Your task to perform on an android device: turn on location history Image 0: 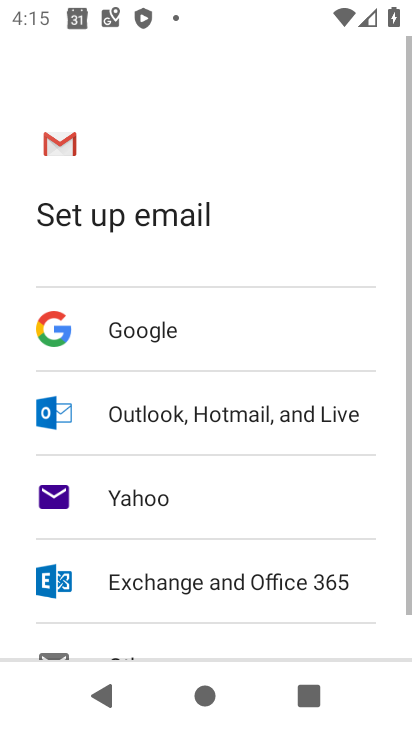
Step 0: press back button
Your task to perform on an android device: turn on location history Image 1: 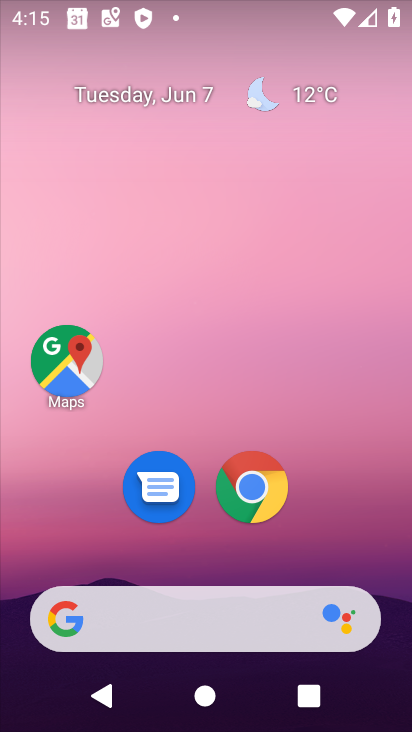
Step 1: drag from (180, 588) to (242, 102)
Your task to perform on an android device: turn on location history Image 2: 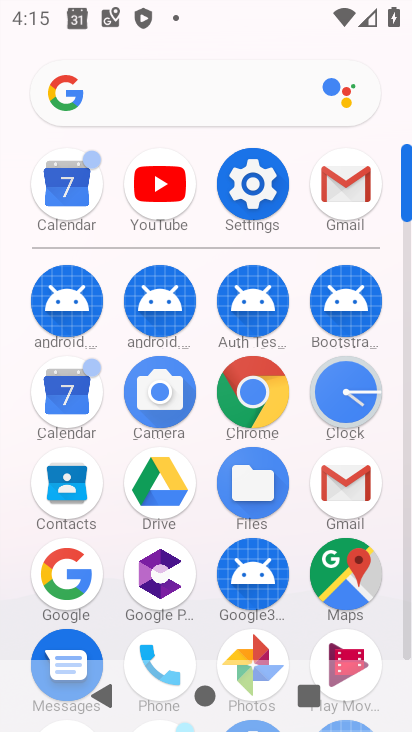
Step 2: click (262, 193)
Your task to perform on an android device: turn on location history Image 3: 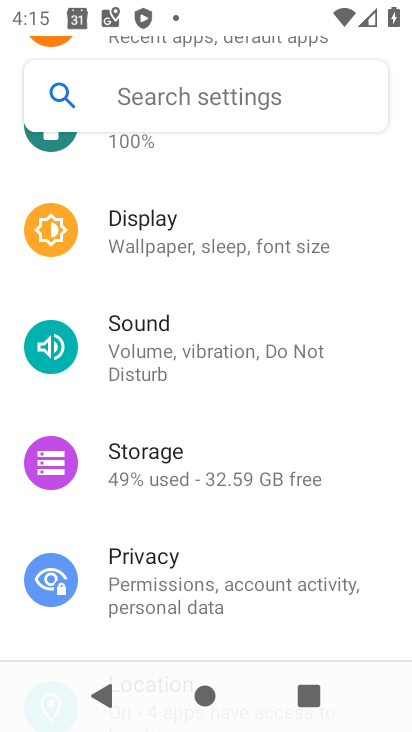
Step 3: drag from (160, 571) to (206, 251)
Your task to perform on an android device: turn on location history Image 4: 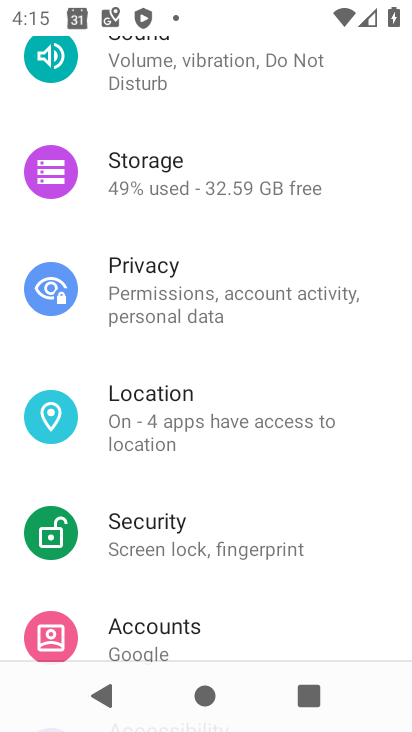
Step 4: click (165, 406)
Your task to perform on an android device: turn on location history Image 5: 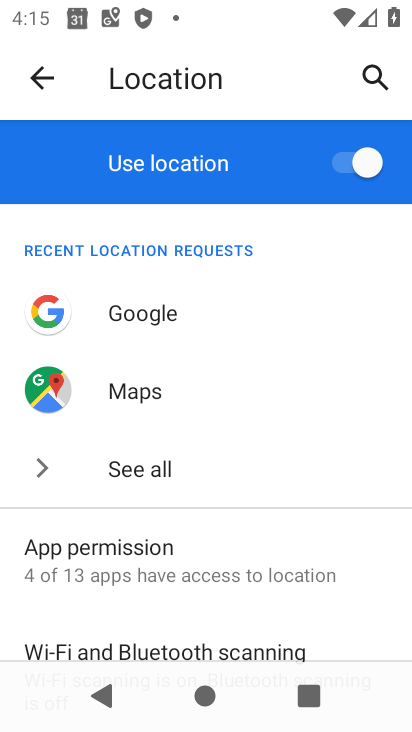
Step 5: drag from (153, 598) to (264, 212)
Your task to perform on an android device: turn on location history Image 6: 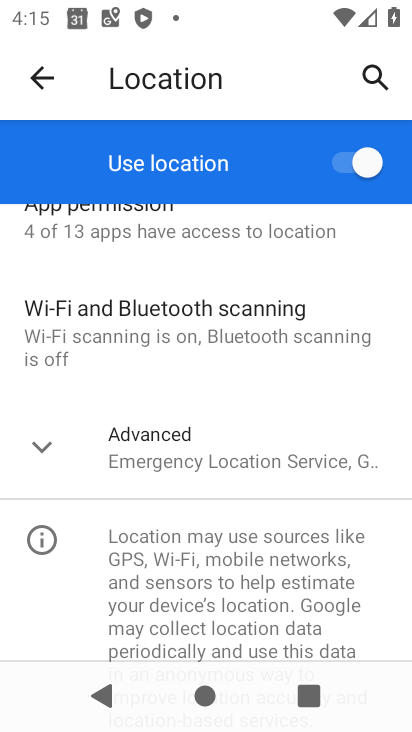
Step 6: click (210, 465)
Your task to perform on an android device: turn on location history Image 7: 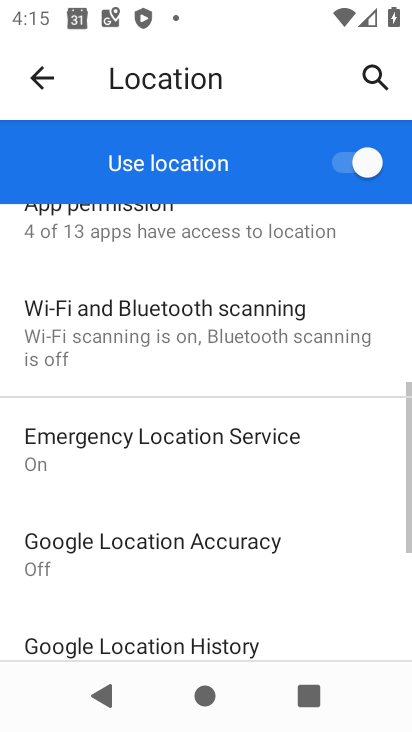
Step 7: click (185, 608)
Your task to perform on an android device: turn on location history Image 8: 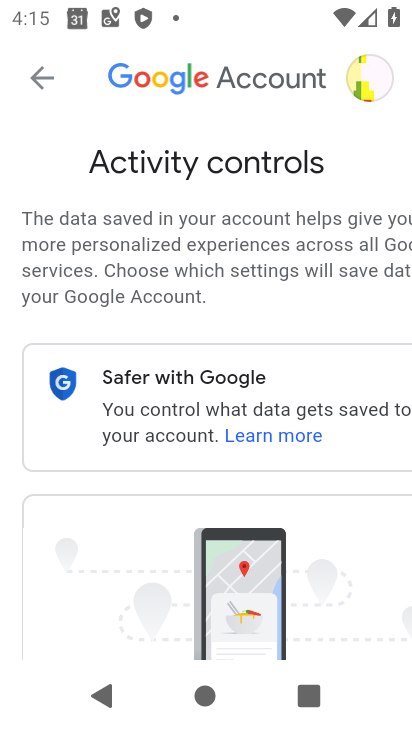
Step 8: task complete